Your task to perform on an android device: turn notification dots on Image 0: 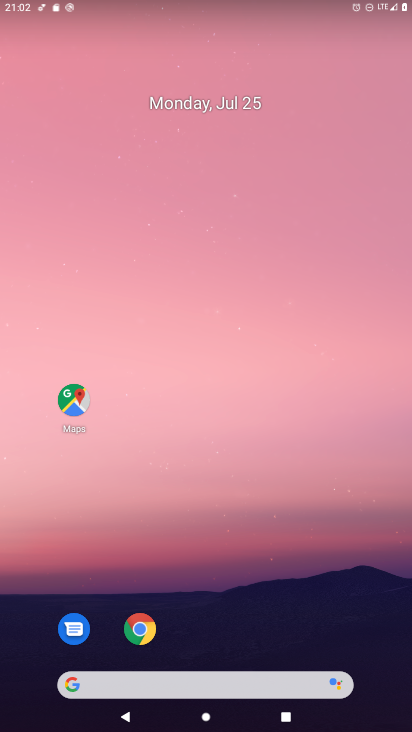
Step 0: drag from (177, 686) to (271, 191)
Your task to perform on an android device: turn notification dots on Image 1: 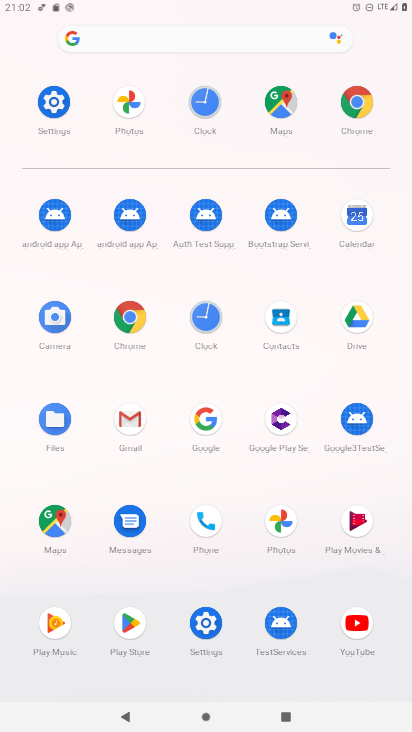
Step 1: click (53, 102)
Your task to perform on an android device: turn notification dots on Image 2: 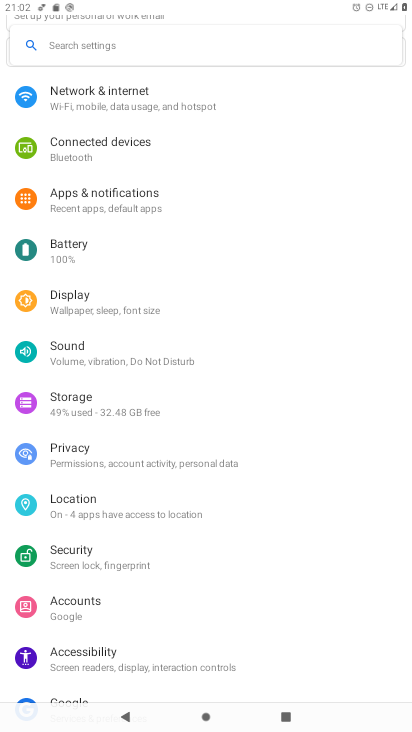
Step 2: click (84, 205)
Your task to perform on an android device: turn notification dots on Image 3: 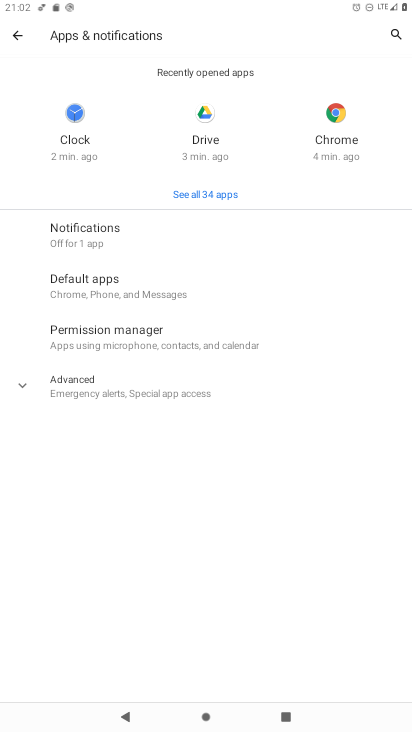
Step 3: click (73, 239)
Your task to perform on an android device: turn notification dots on Image 4: 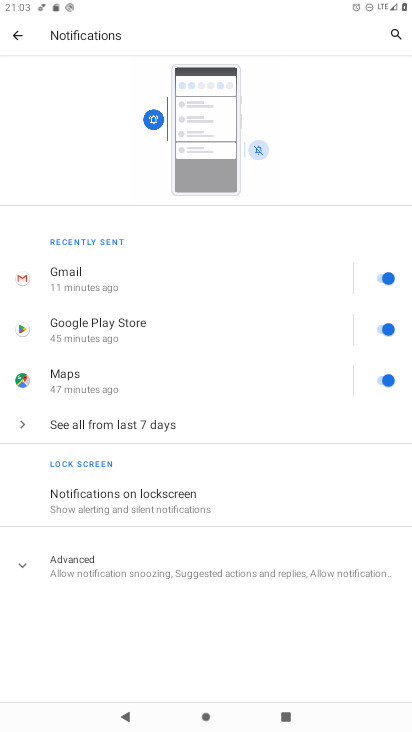
Step 4: click (89, 569)
Your task to perform on an android device: turn notification dots on Image 5: 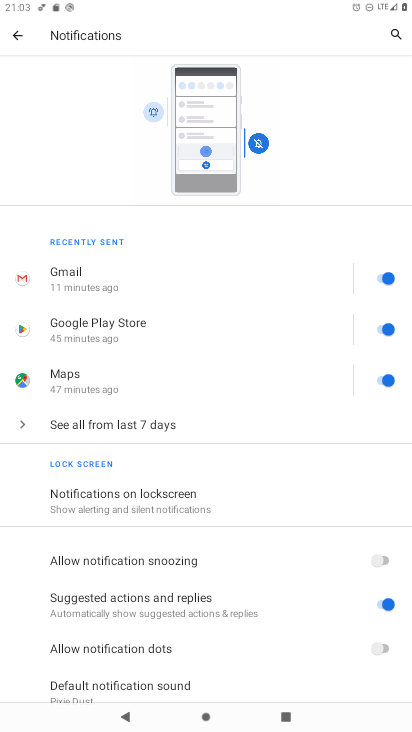
Step 5: click (382, 651)
Your task to perform on an android device: turn notification dots on Image 6: 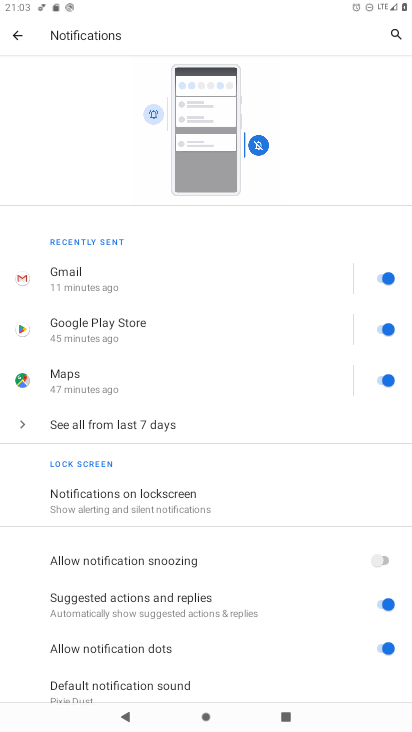
Step 6: task complete